Your task to perform on an android device: open a bookmark in the chrome app Image 0: 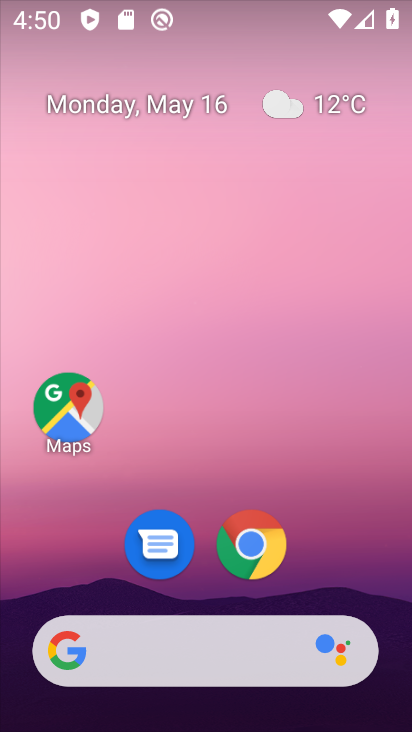
Step 0: click (252, 545)
Your task to perform on an android device: open a bookmark in the chrome app Image 1: 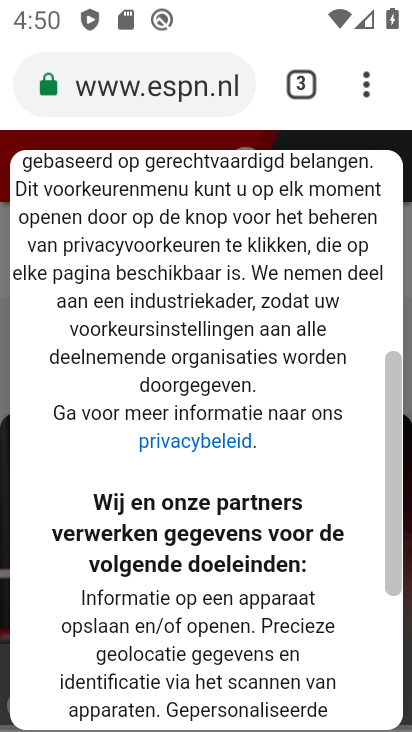
Step 1: click (367, 81)
Your task to perform on an android device: open a bookmark in the chrome app Image 2: 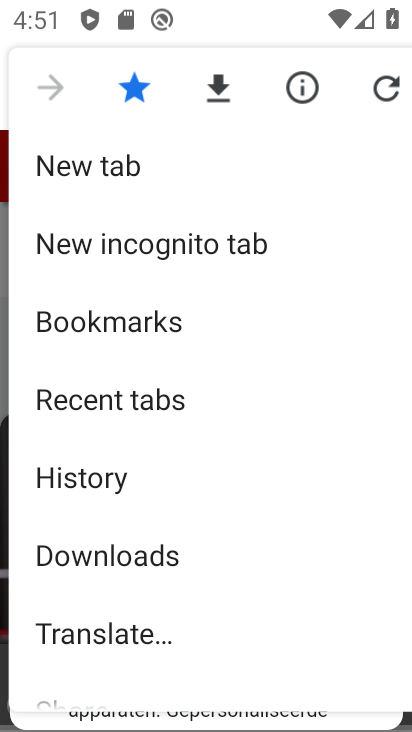
Step 2: click (122, 332)
Your task to perform on an android device: open a bookmark in the chrome app Image 3: 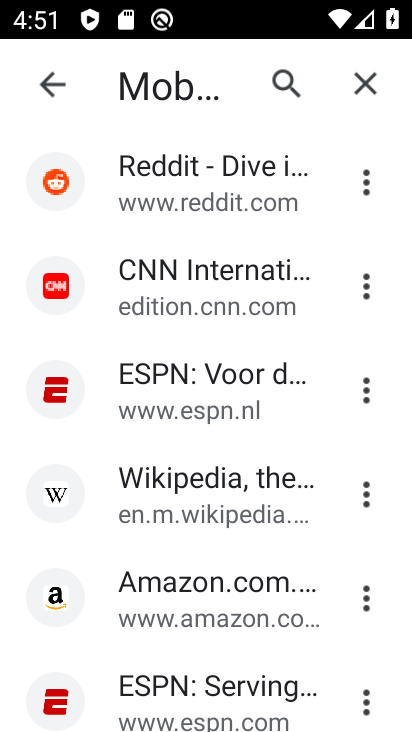
Step 3: task complete